Your task to perform on an android device: Open Chrome and go to the settings page Image 0: 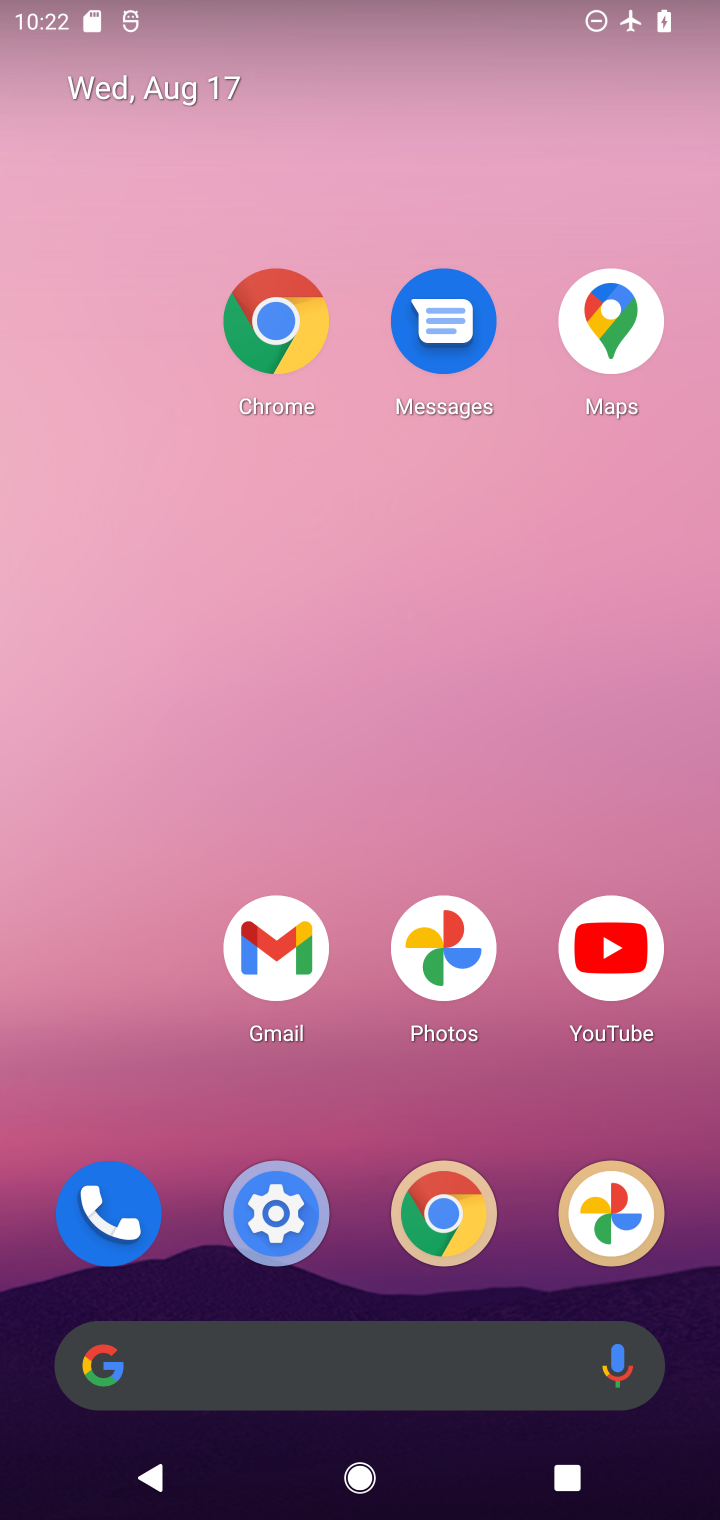
Step 0: click (303, 1210)
Your task to perform on an android device: Open Chrome and go to the settings page Image 1: 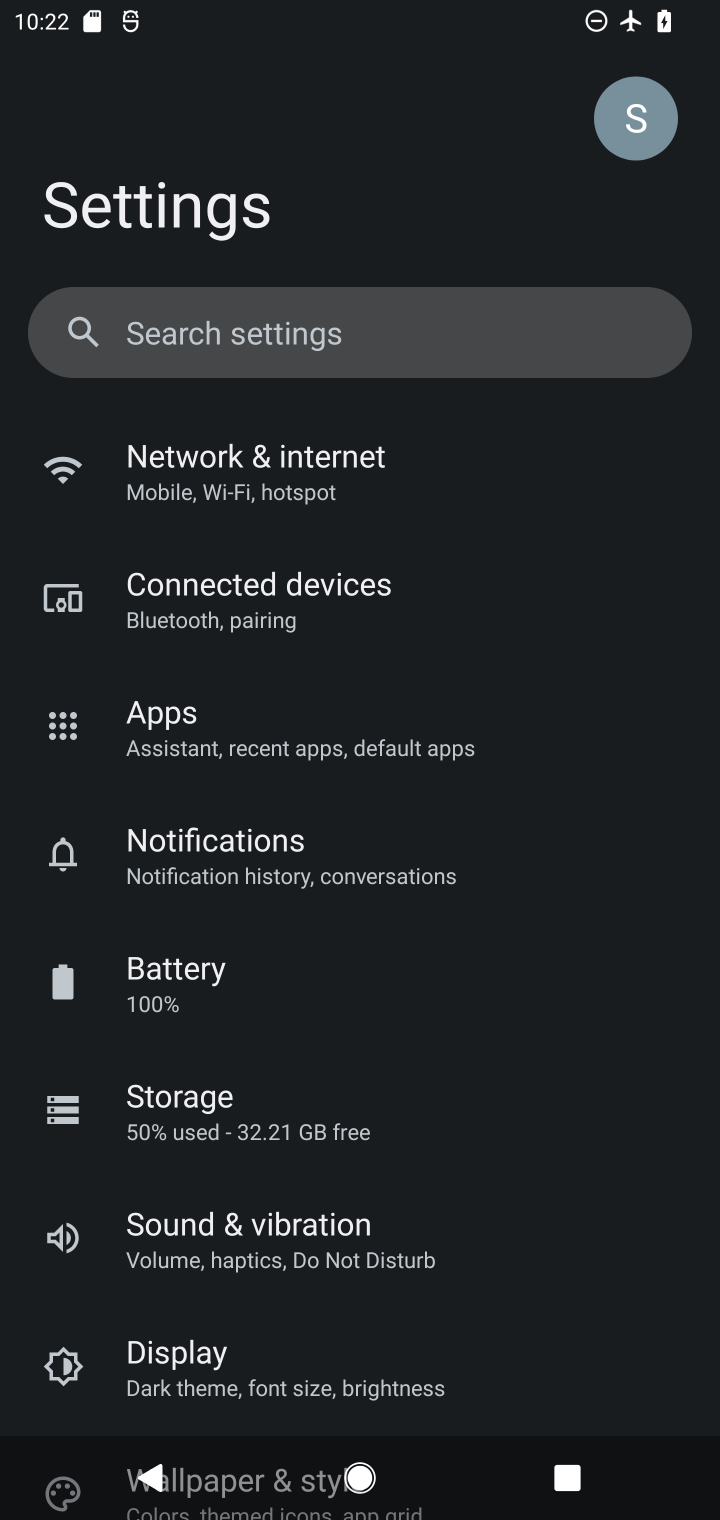
Step 1: press home button
Your task to perform on an android device: Open Chrome and go to the settings page Image 2: 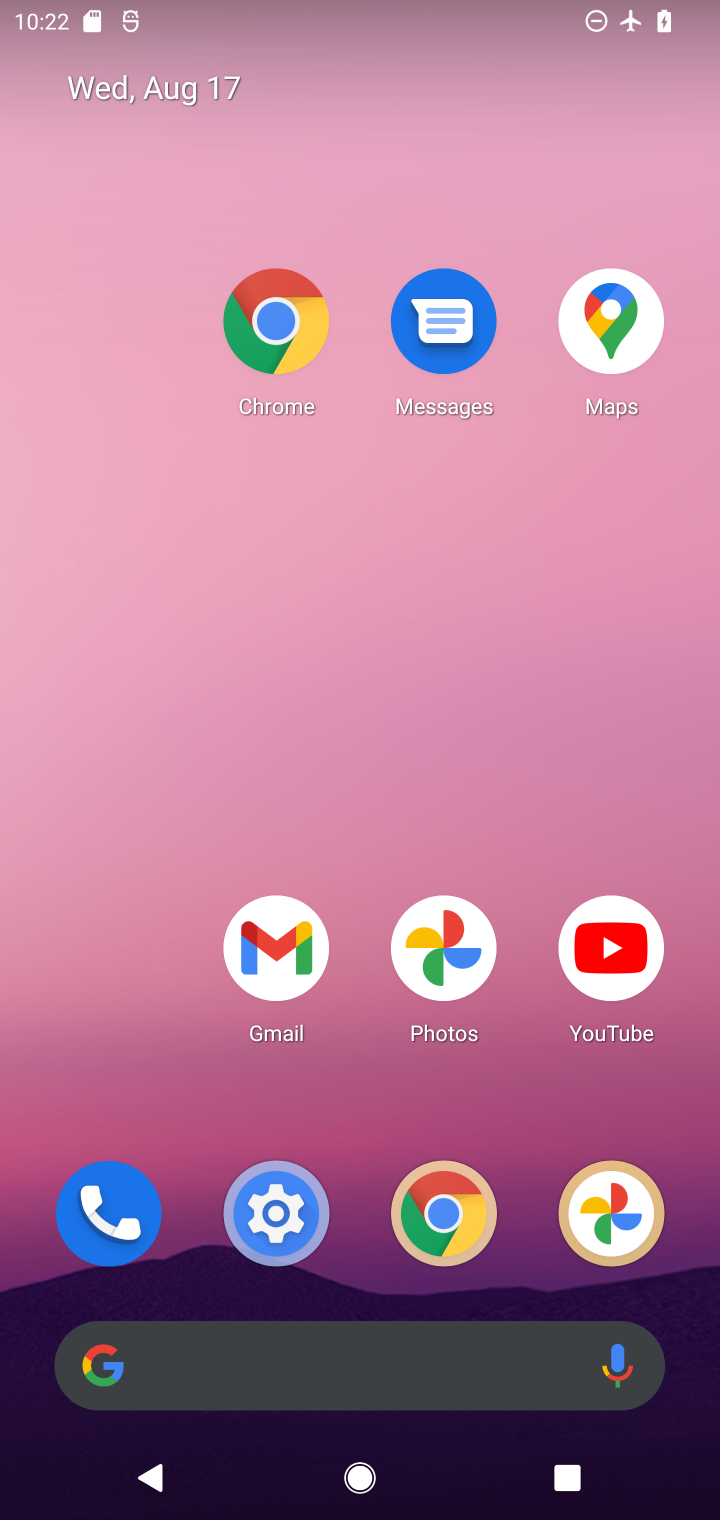
Step 2: click (440, 1227)
Your task to perform on an android device: Open Chrome and go to the settings page Image 3: 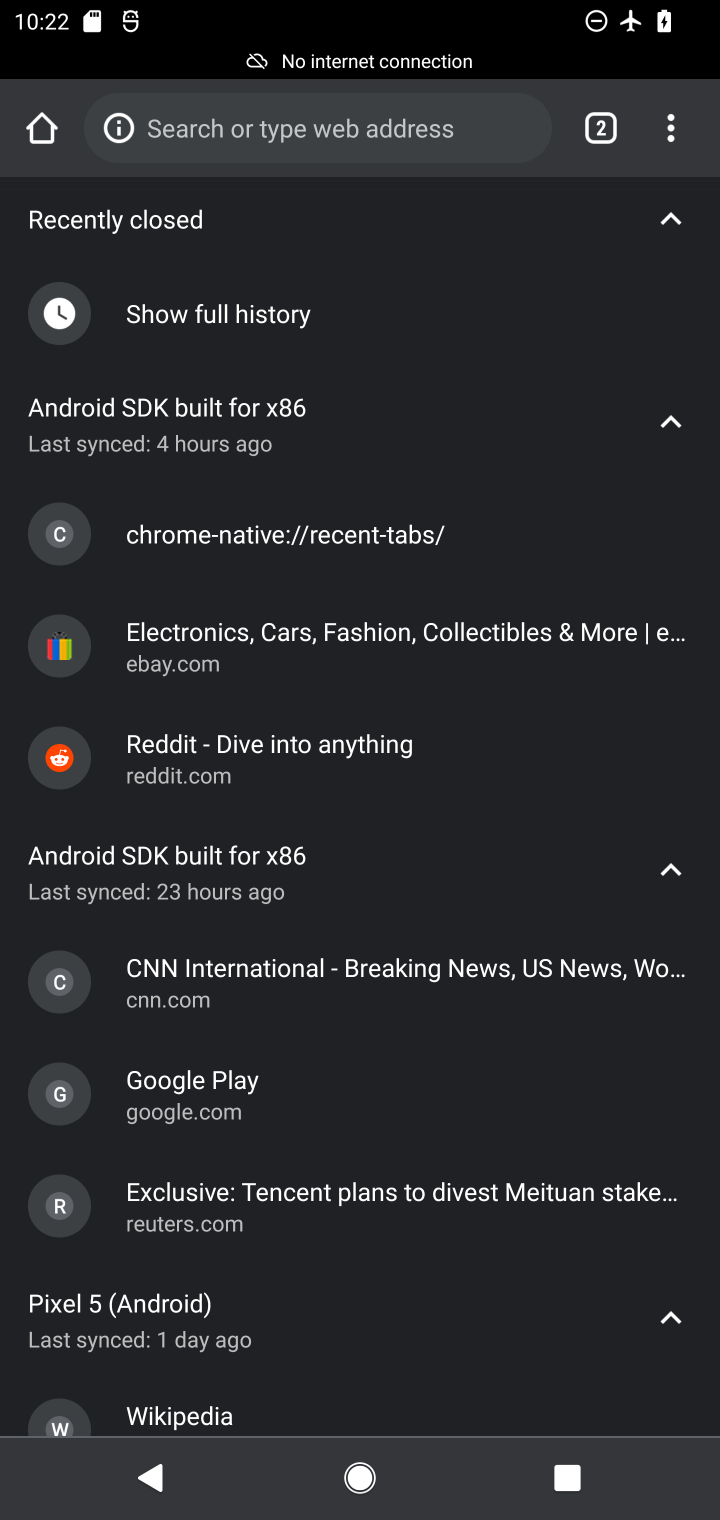
Step 3: click (663, 139)
Your task to perform on an android device: Open Chrome and go to the settings page Image 4: 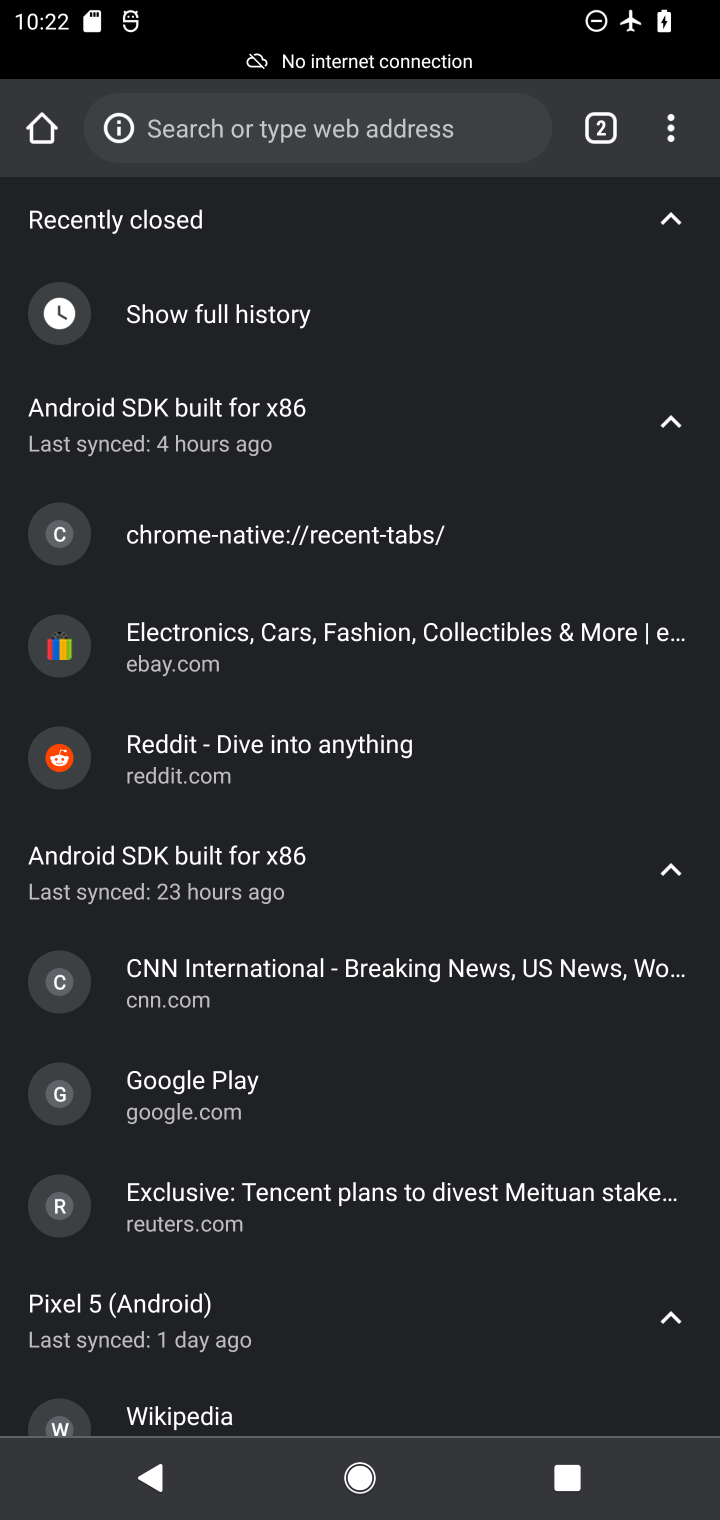
Step 4: click (687, 141)
Your task to perform on an android device: Open Chrome and go to the settings page Image 5: 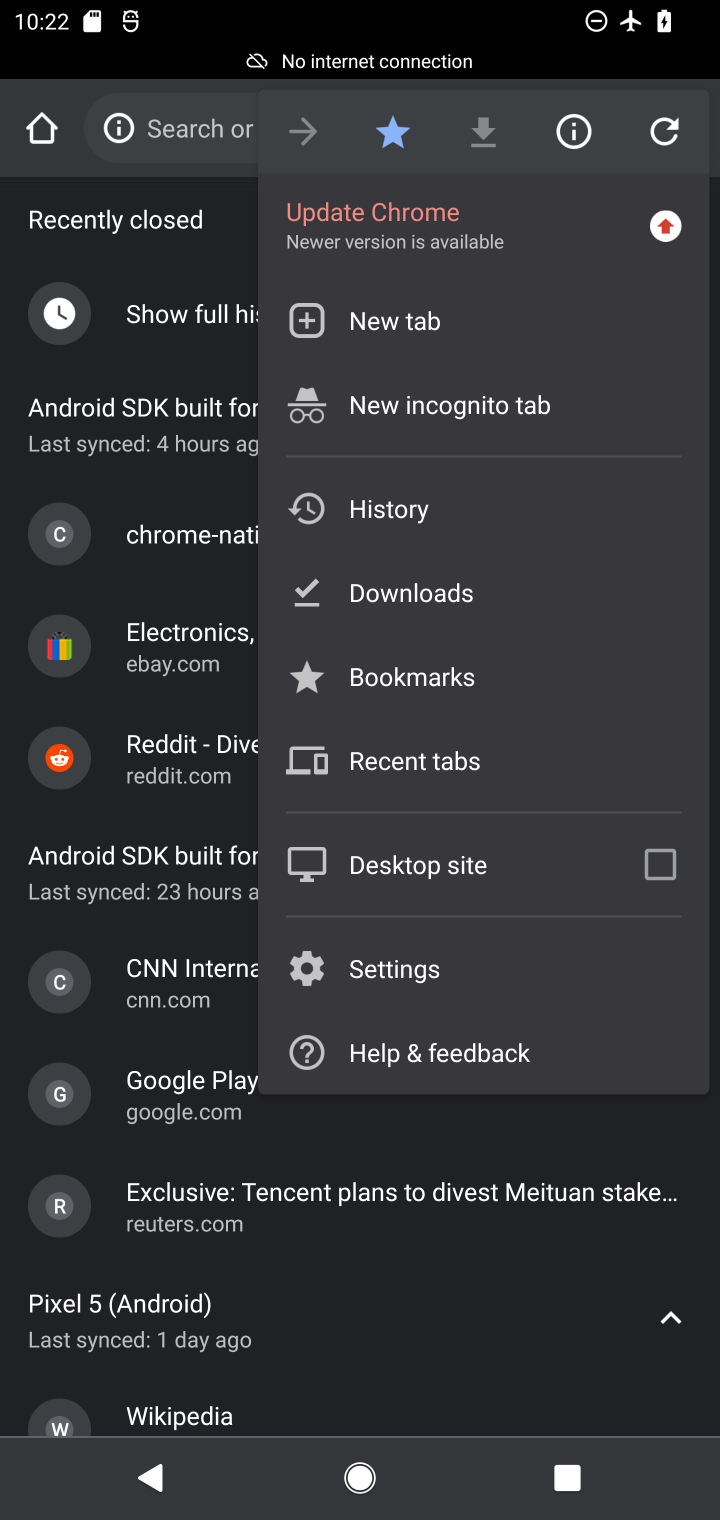
Step 5: click (460, 960)
Your task to perform on an android device: Open Chrome and go to the settings page Image 6: 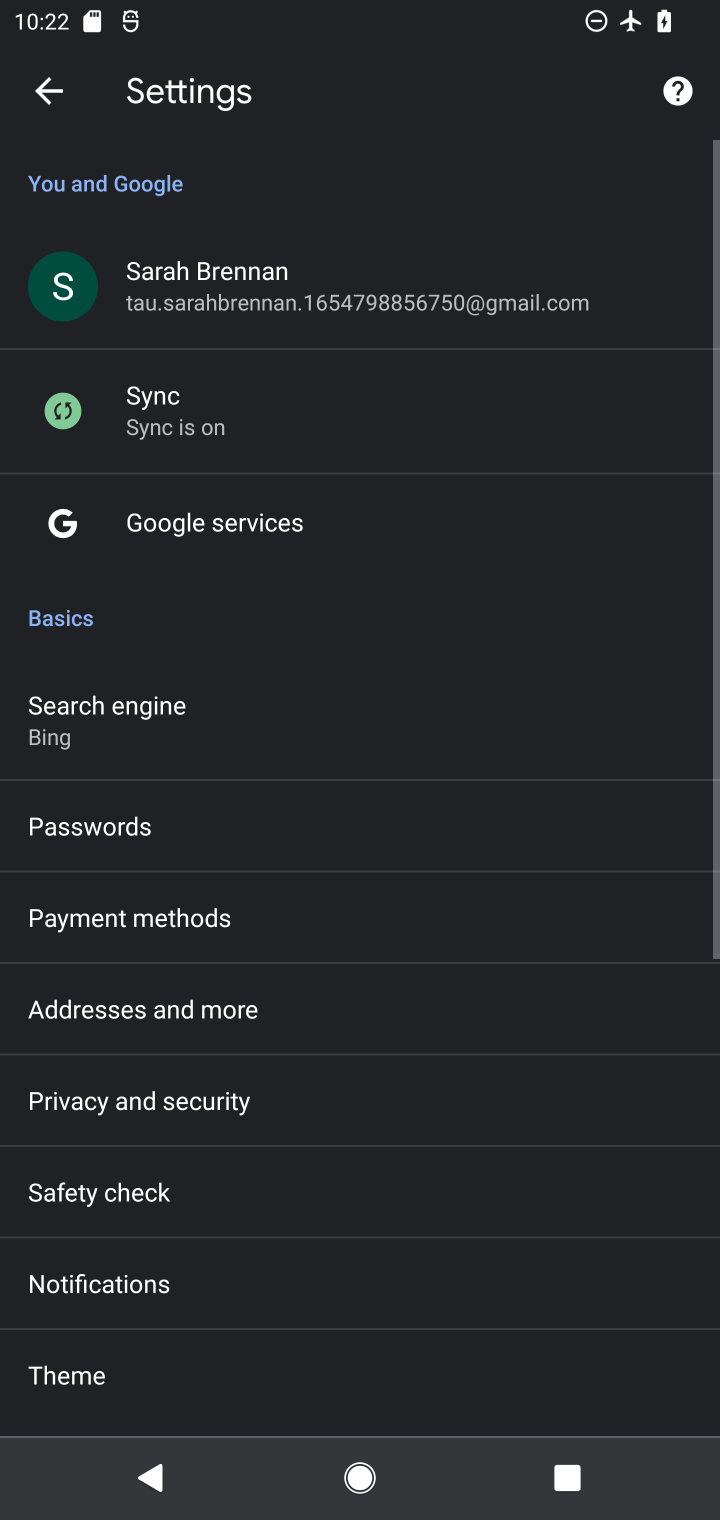
Step 6: task complete